Your task to perform on an android device: Open Amazon Image 0: 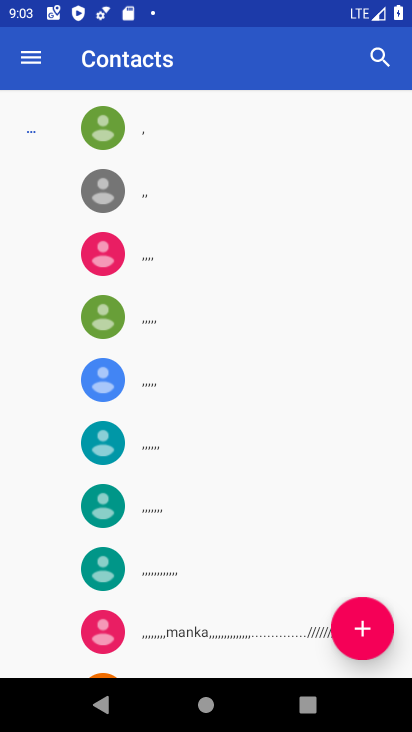
Step 0: press home button
Your task to perform on an android device: Open Amazon Image 1: 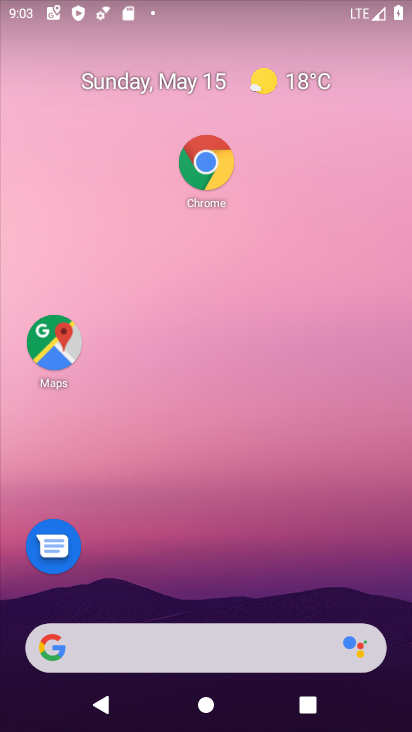
Step 1: drag from (279, 557) to (348, 299)
Your task to perform on an android device: Open Amazon Image 2: 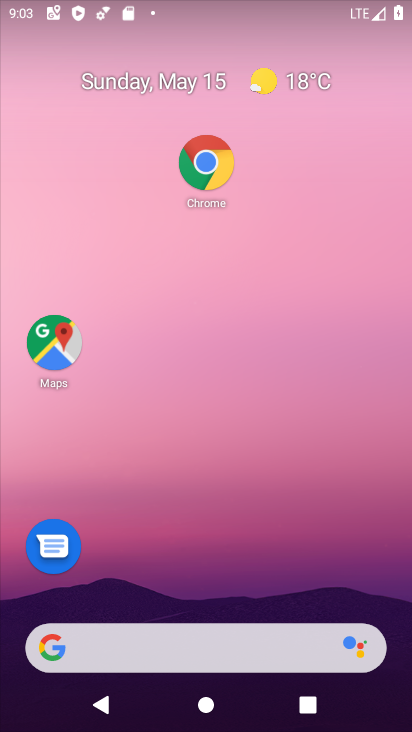
Step 2: drag from (238, 604) to (323, 320)
Your task to perform on an android device: Open Amazon Image 3: 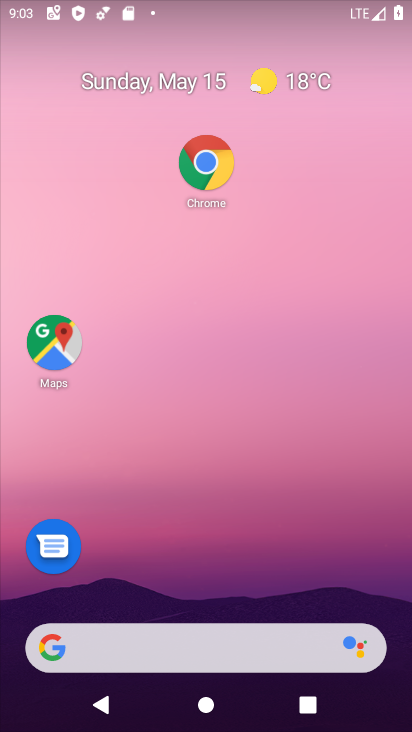
Step 3: drag from (208, 593) to (331, 188)
Your task to perform on an android device: Open Amazon Image 4: 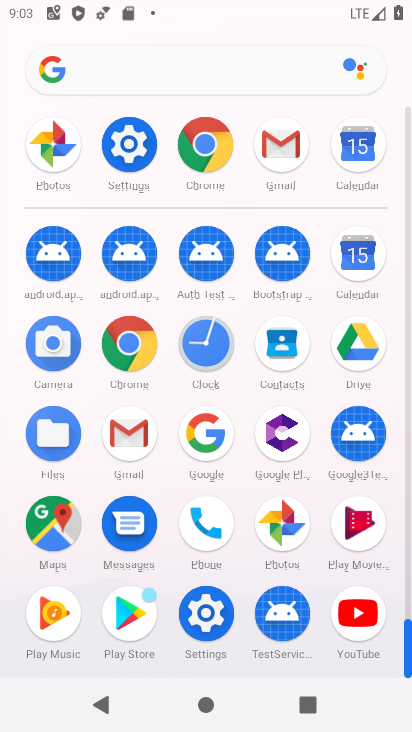
Step 4: click (201, 135)
Your task to perform on an android device: Open Amazon Image 5: 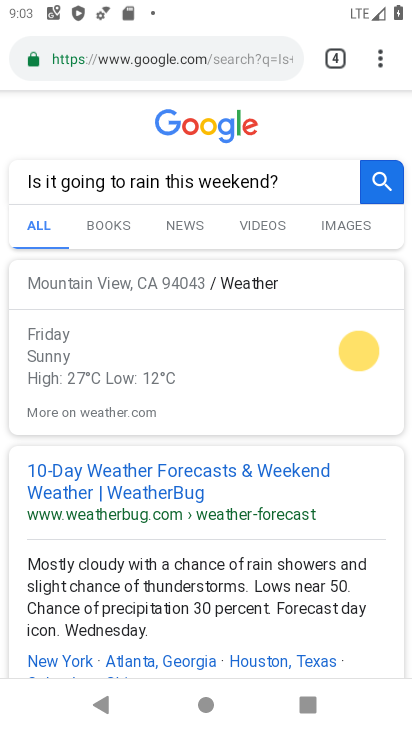
Step 5: click (388, 55)
Your task to perform on an android device: Open Amazon Image 6: 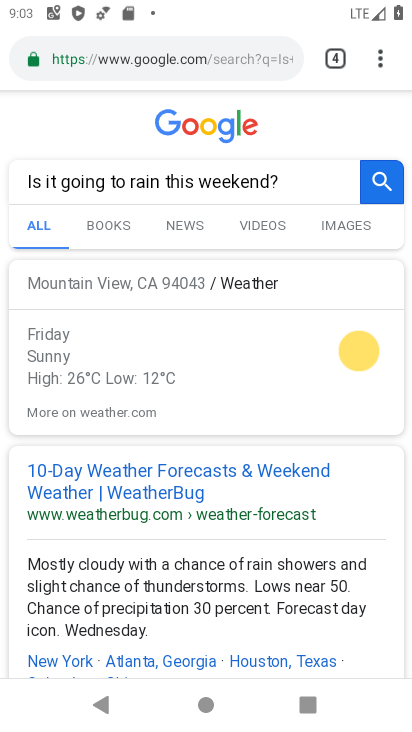
Step 6: click (384, 54)
Your task to perform on an android device: Open Amazon Image 7: 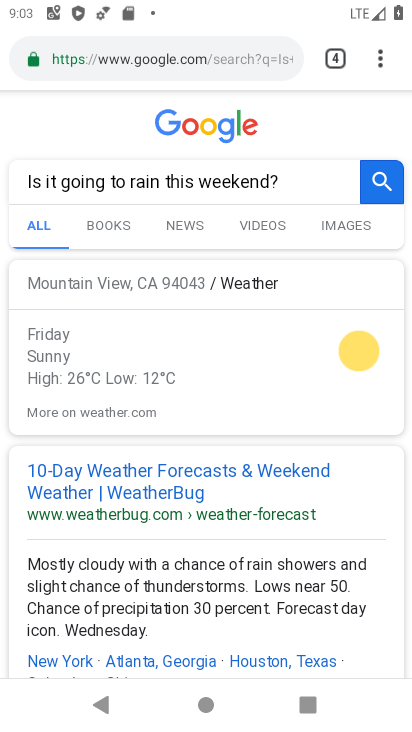
Step 7: click (371, 56)
Your task to perform on an android device: Open Amazon Image 8: 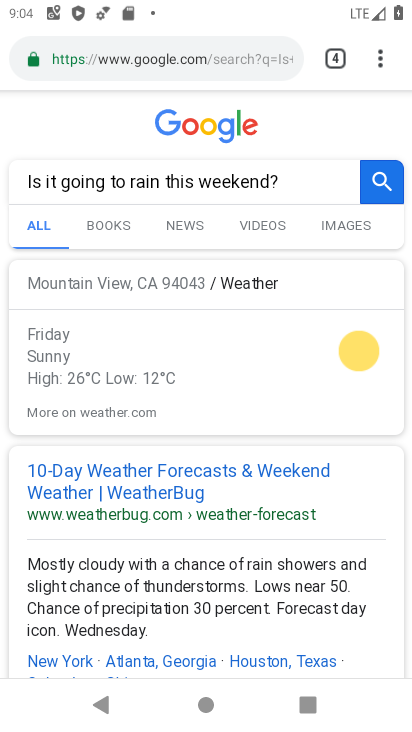
Step 8: click (368, 55)
Your task to perform on an android device: Open Amazon Image 9: 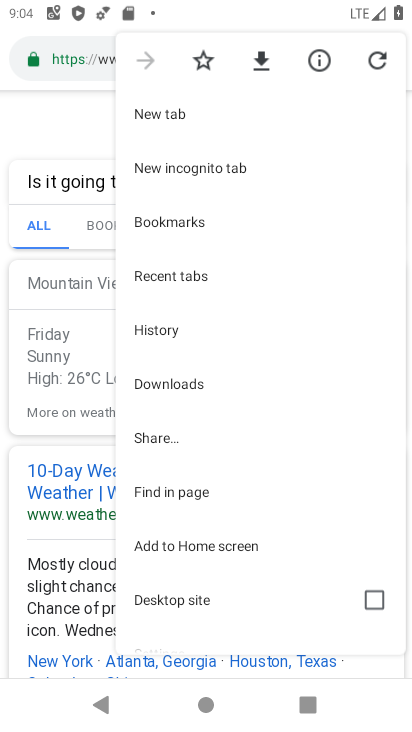
Step 9: click (158, 103)
Your task to perform on an android device: Open Amazon Image 10: 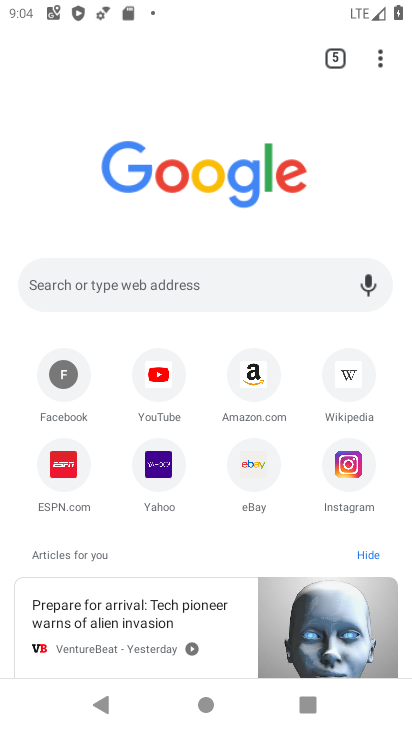
Step 10: click (255, 379)
Your task to perform on an android device: Open Amazon Image 11: 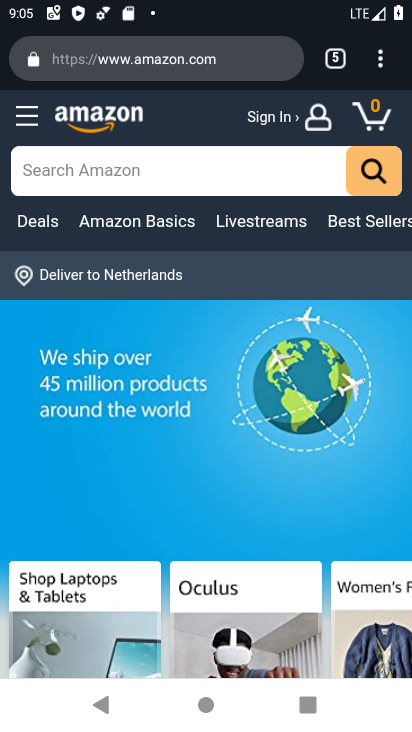
Step 11: task complete